Your task to perform on an android device: turn off notifications settings in the gmail app Image 0: 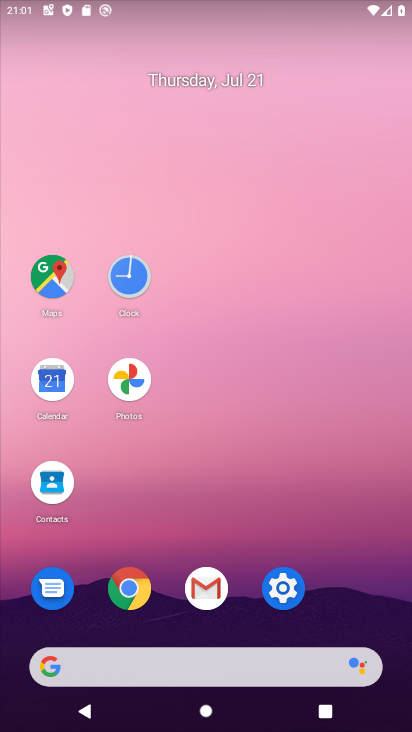
Step 0: click (205, 583)
Your task to perform on an android device: turn off notifications settings in the gmail app Image 1: 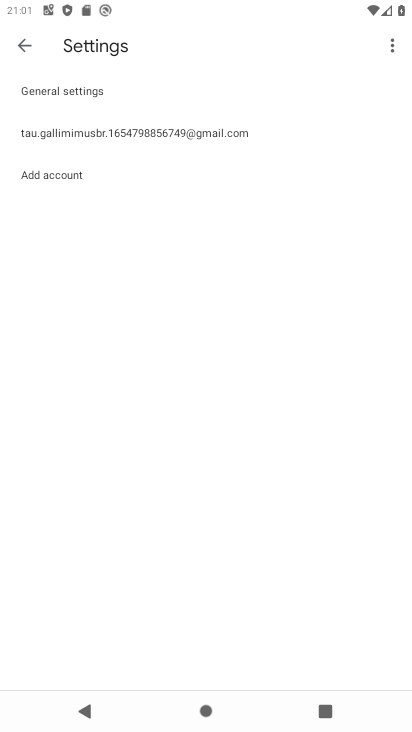
Step 1: click (31, 89)
Your task to perform on an android device: turn off notifications settings in the gmail app Image 2: 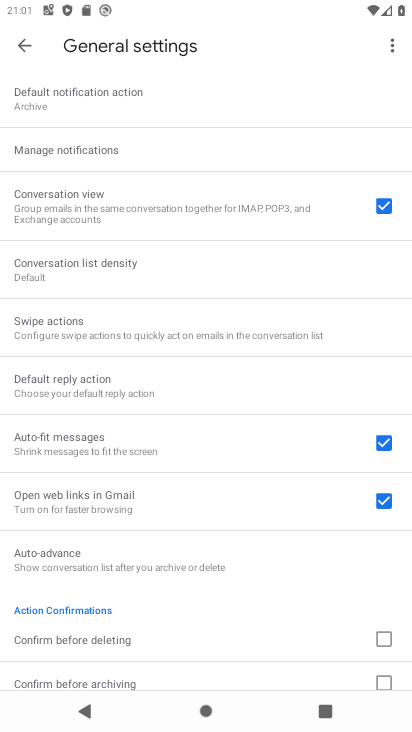
Step 2: click (83, 150)
Your task to perform on an android device: turn off notifications settings in the gmail app Image 3: 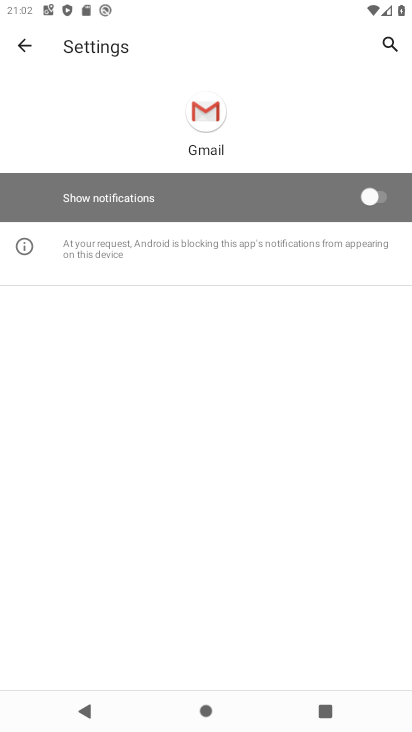
Step 3: task complete